Your task to perform on an android device: see tabs open on other devices in the chrome app Image 0: 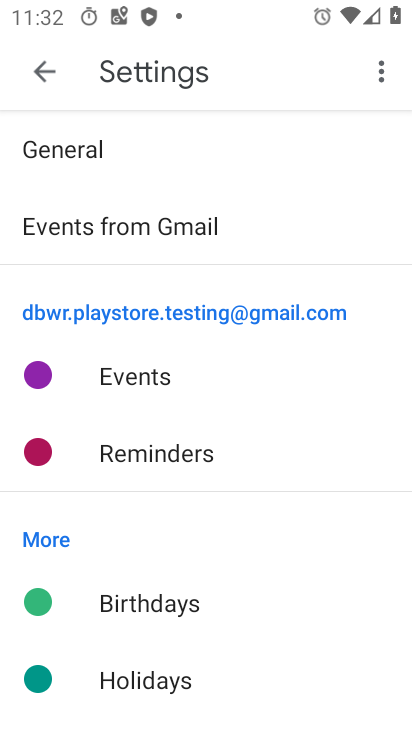
Step 0: press home button
Your task to perform on an android device: see tabs open on other devices in the chrome app Image 1: 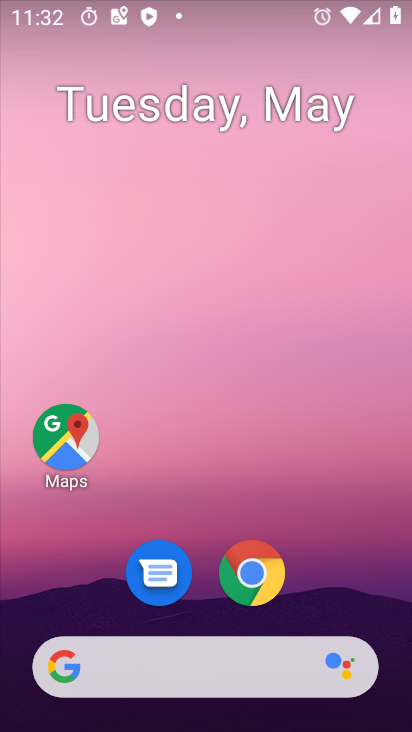
Step 1: drag from (240, 705) to (347, 275)
Your task to perform on an android device: see tabs open on other devices in the chrome app Image 2: 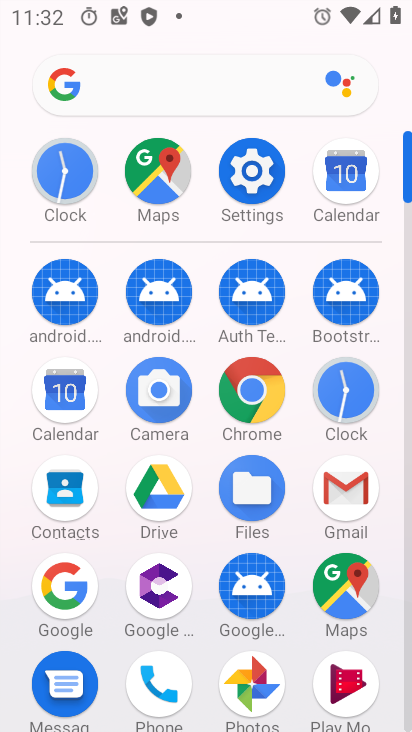
Step 2: click (250, 394)
Your task to perform on an android device: see tabs open on other devices in the chrome app Image 3: 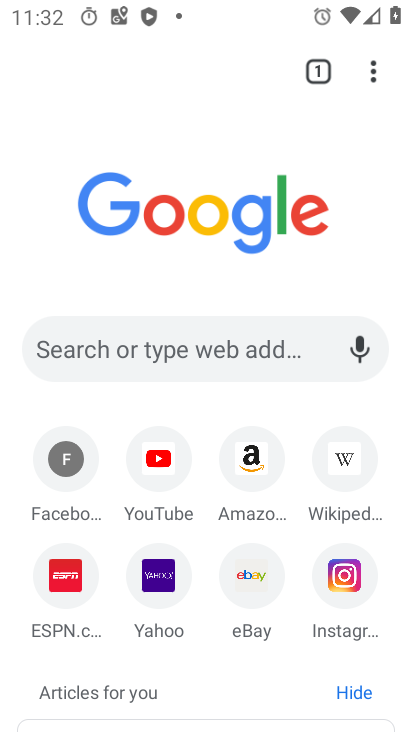
Step 3: click (319, 67)
Your task to perform on an android device: see tabs open on other devices in the chrome app Image 4: 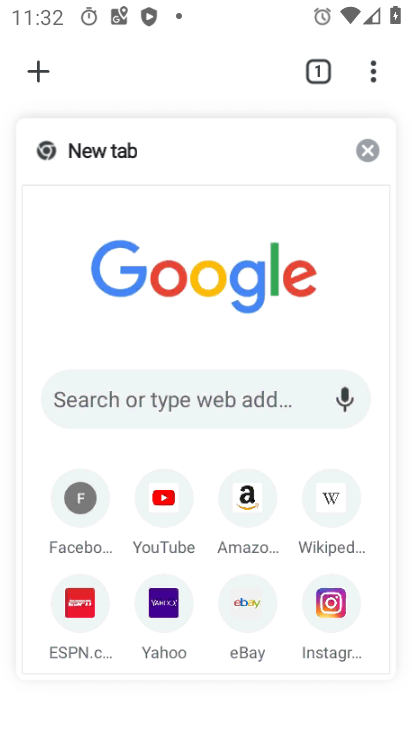
Step 4: click (49, 73)
Your task to perform on an android device: see tabs open on other devices in the chrome app Image 5: 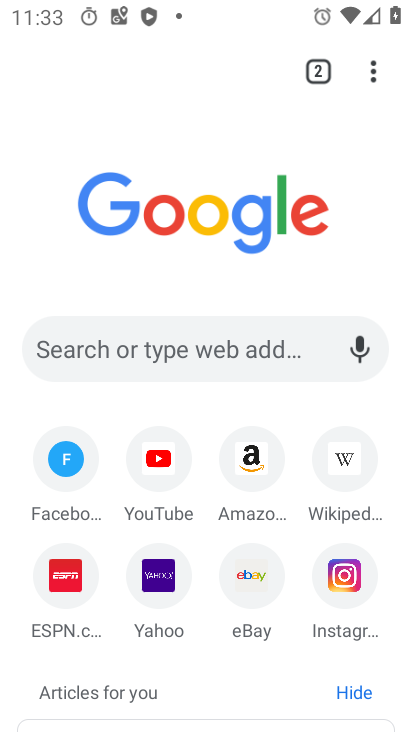
Step 5: task complete